Your task to perform on an android device: Open calendar and show me the third week of next month Image 0: 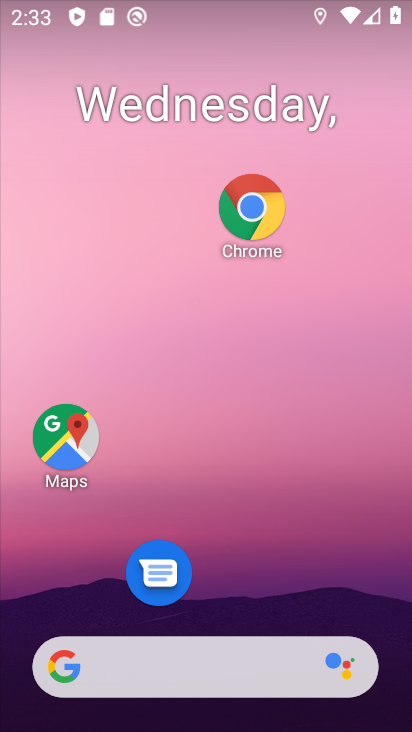
Step 0: drag from (250, 227) to (282, 35)
Your task to perform on an android device: Open calendar and show me the third week of next month Image 1: 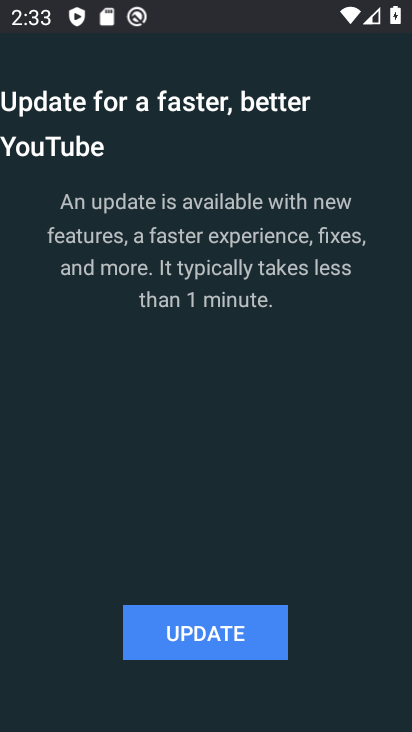
Step 1: press home button
Your task to perform on an android device: Open calendar and show me the third week of next month Image 2: 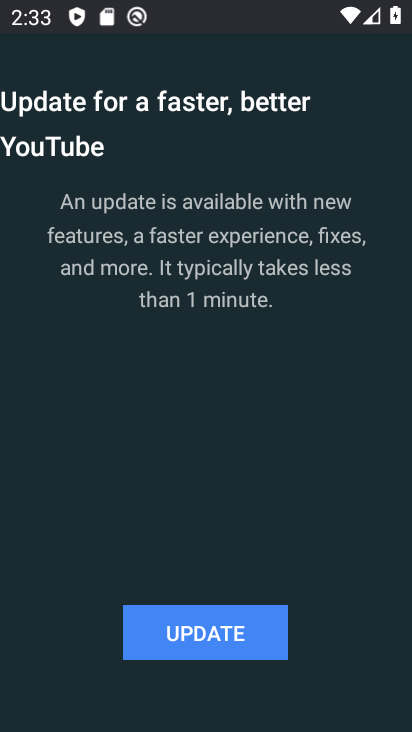
Step 2: drag from (282, 35) to (319, 195)
Your task to perform on an android device: Open calendar and show me the third week of next month Image 3: 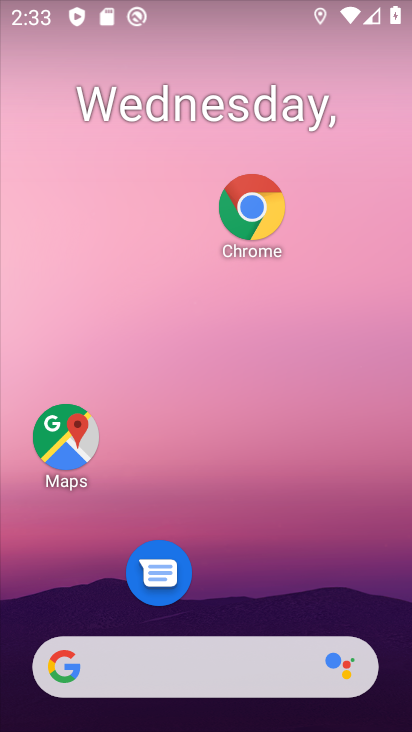
Step 3: drag from (264, 599) to (319, 52)
Your task to perform on an android device: Open calendar and show me the third week of next month Image 4: 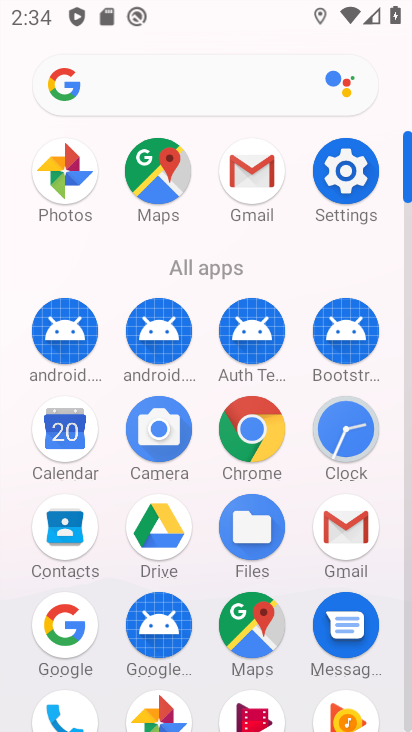
Step 4: click (74, 427)
Your task to perform on an android device: Open calendar and show me the third week of next month Image 5: 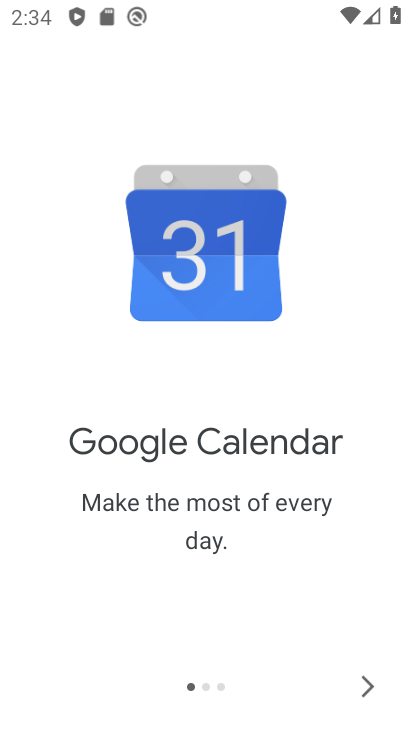
Step 5: click (355, 693)
Your task to perform on an android device: Open calendar and show me the third week of next month Image 6: 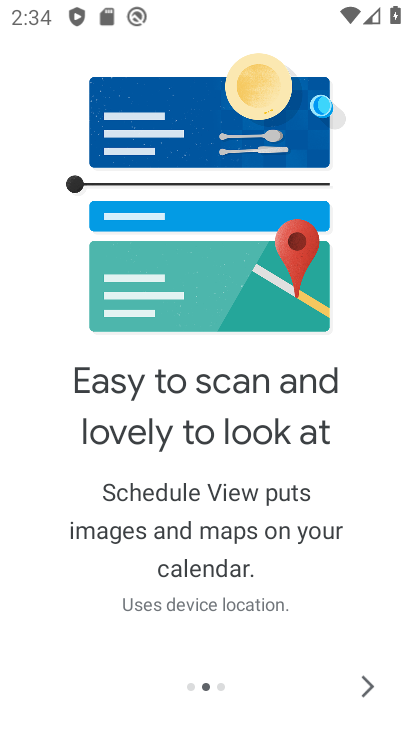
Step 6: click (372, 684)
Your task to perform on an android device: Open calendar and show me the third week of next month Image 7: 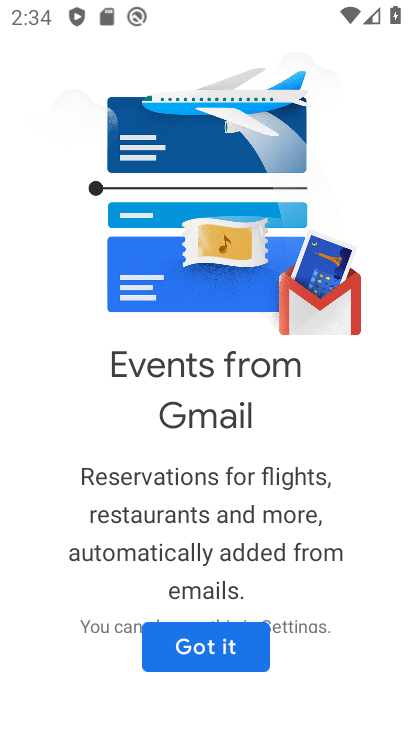
Step 7: click (255, 654)
Your task to perform on an android device: Open calendar and show me the third week of next month Image 8: 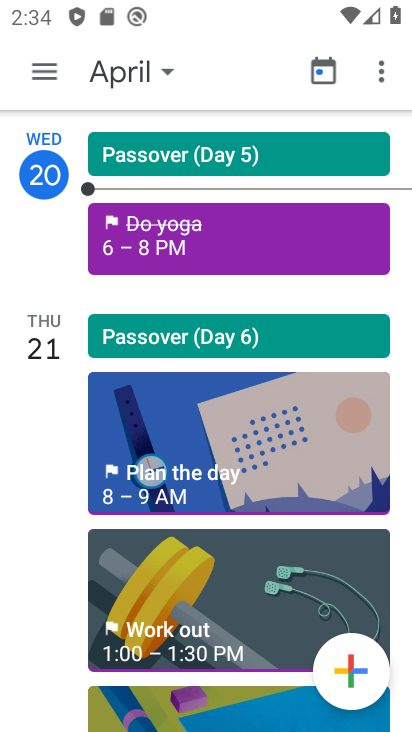
Step 8: click (152, 89)
Your task to perform on an android device: Open calendar and show me the third week of next month Image 9: 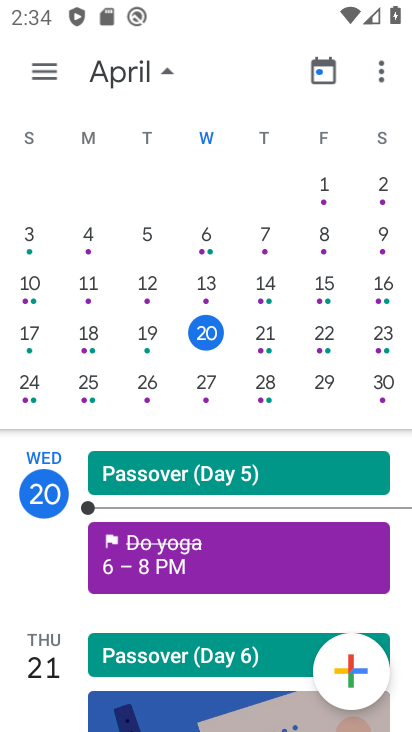
Step 9: drag from (349, 305) to (0, 278)
Your task to perform on an android device: Open calendar and show me the third week of next month Image 10: 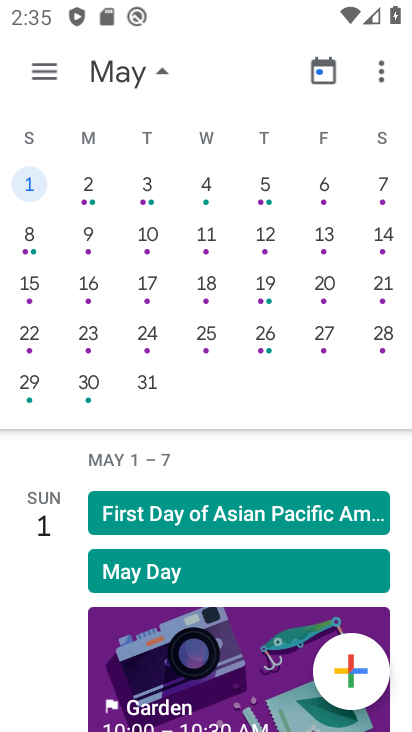
Step 10: click (36, 288)
Your task to perform on an android device: Open calendar and show me the third week of next month Image 11: 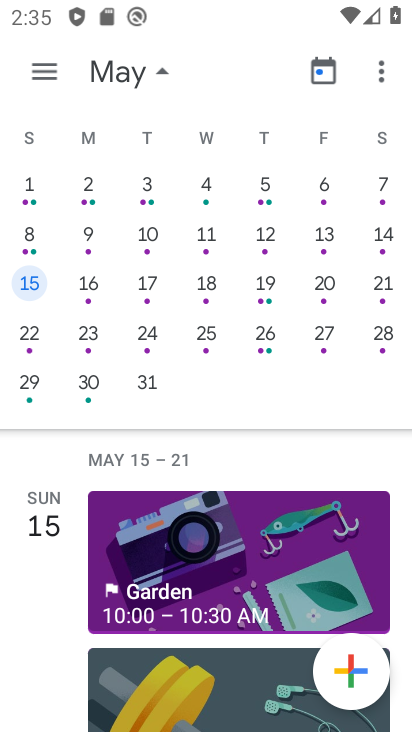
Step 11: task complete